Your task to perform on an android device: find snoozed emails in the gmail app Image 0: 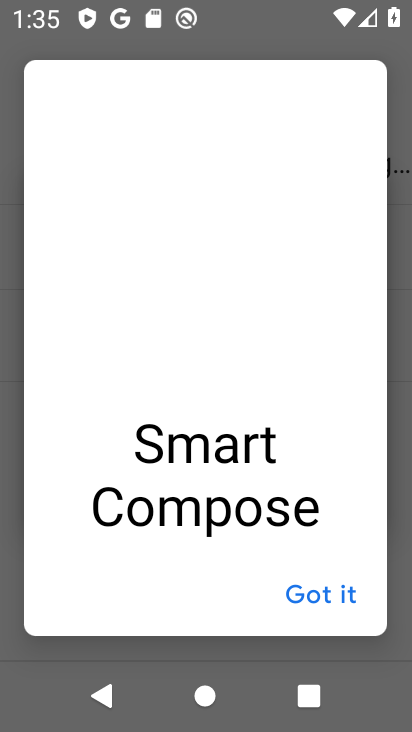
Step 0: press home button
Your task to perform on an android device: find snoozed emails in the gmail app Image 1: 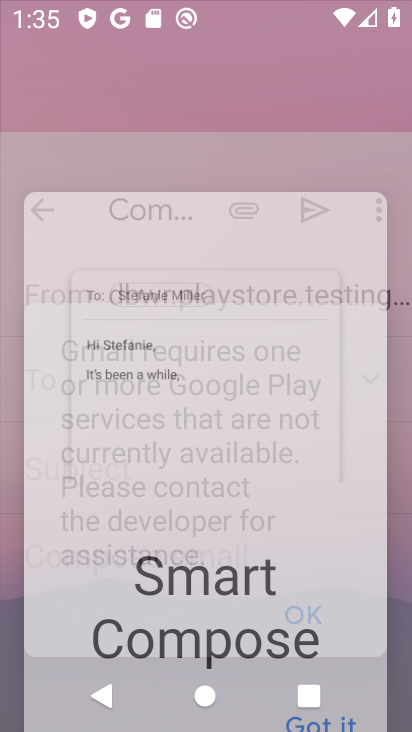
Step 1: press home button
Your task to perform on an android device: find snoozed emails in the gmail app Image 2: 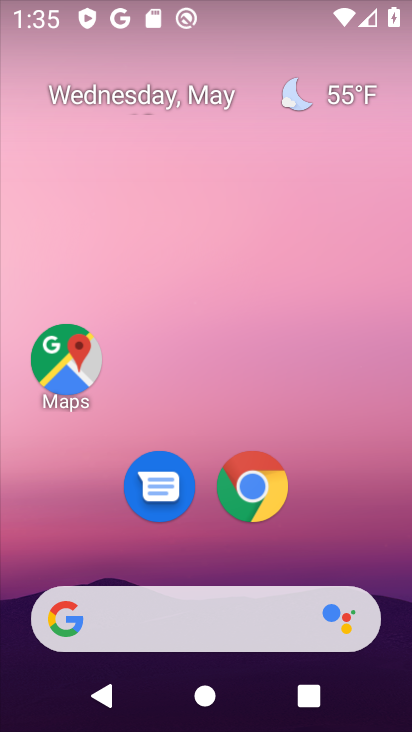
Step 2: drag from (238, 597) to (280, 146)
Your task to perform on an android device: find snoozed emails in the gmail app Image 3: 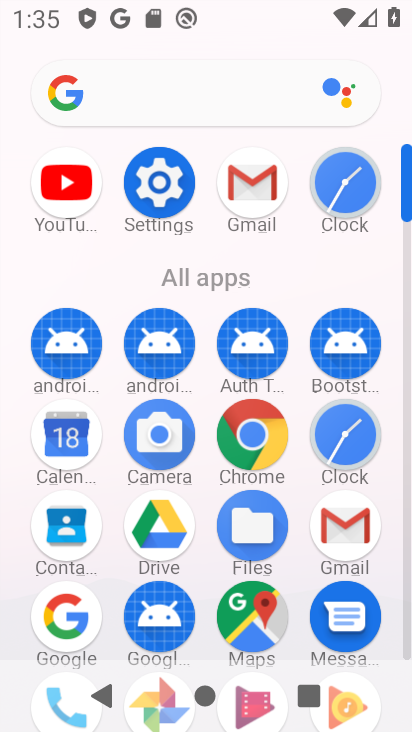
Step 3: click (262, 180)
Your task to perform on an android device: find snoozed emails in the gmail app Image 4: 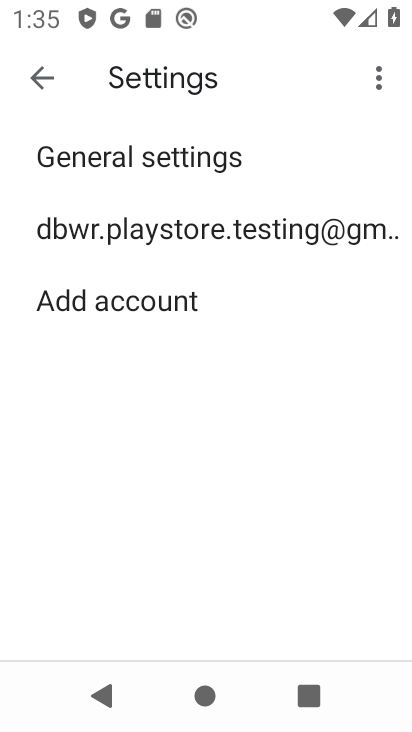
Step 4: click (38, 92)
Your task to perform on an android device: find snoozed emails in the gmail app Image 5: 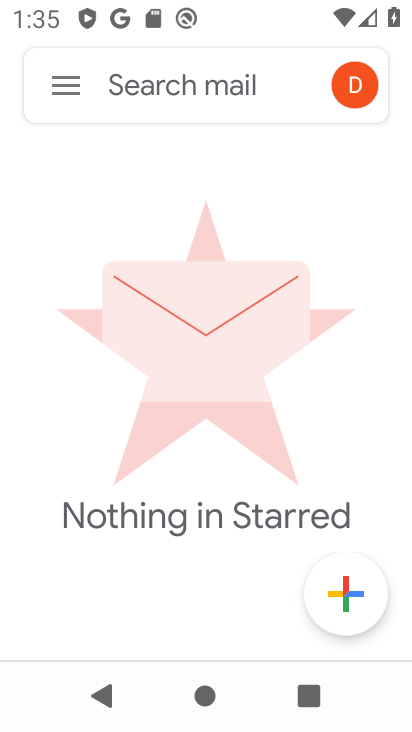
Step 5: click (46, 91)
Your task to perform on an android device: find snoozed emails in the gmail app Image 6: 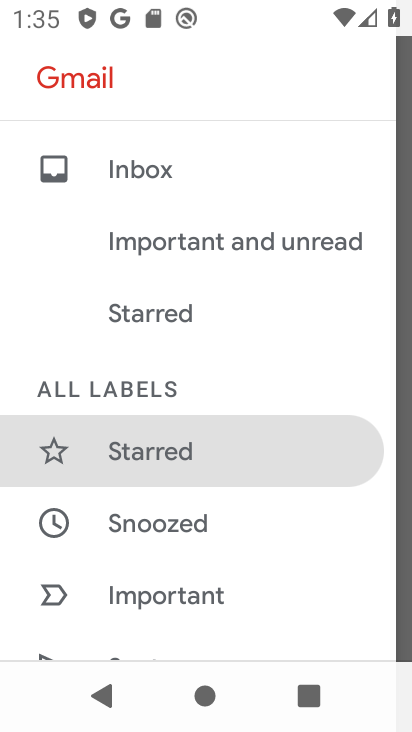
Step 6: click (154, 514)
Your task to perform on an android device: find snoozed emails in the gmail app Image 7: 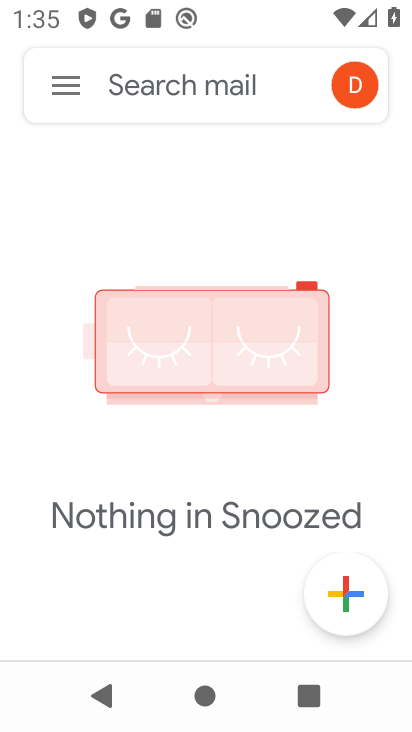
Step 7: task complete